Your task to perform on an android device: star an email in the gmail app Image 0: 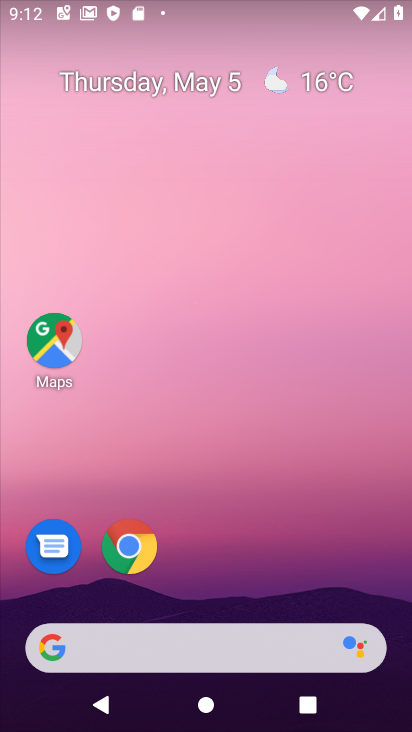
Step 0: drag from (233, 609) to (367, 66)
Your task to perform on an android device: star an email in the gmail app Image 1: 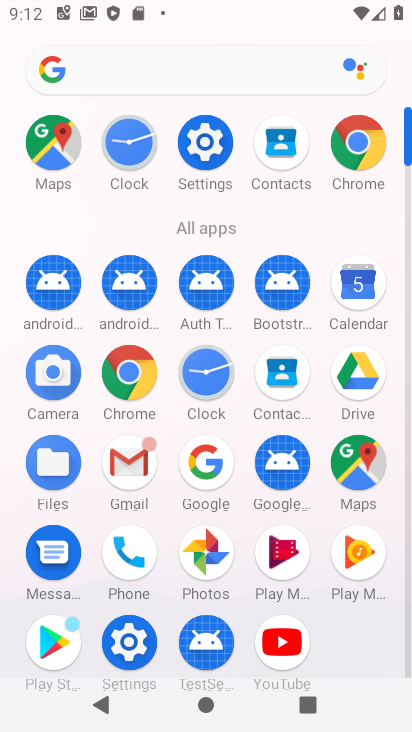
Step 1: click (117, 461)
Your task to perform on an android device: star an email in the gmail app Image 2: 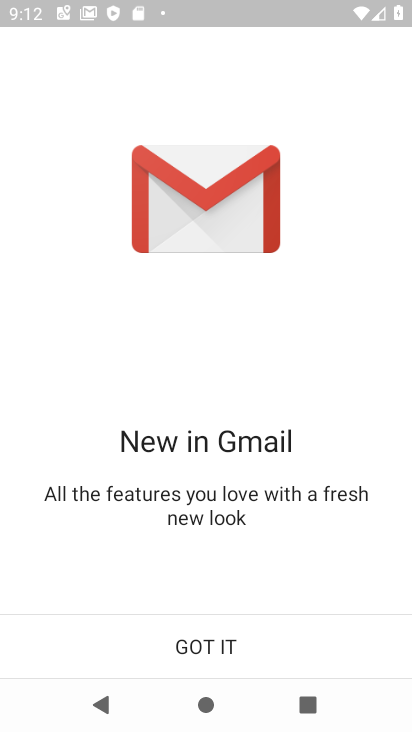
Step 2: click (179, 635)
Your task to perform on an android device: star an email in the gmail app Image 3: 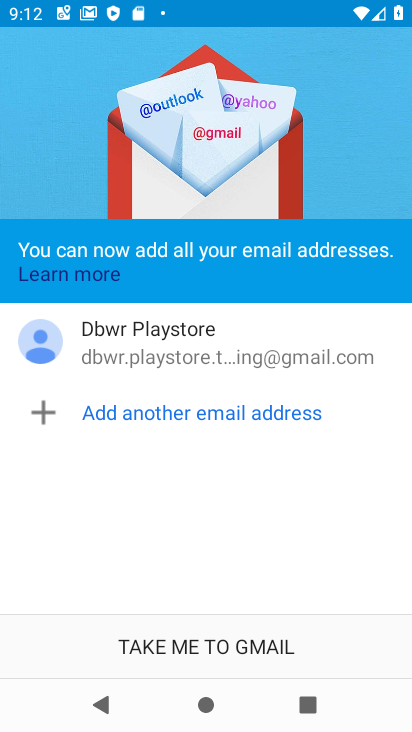
Step 3: click (158, 643)
Your task to perform on an android device: star an email in the gmail app Image 4: 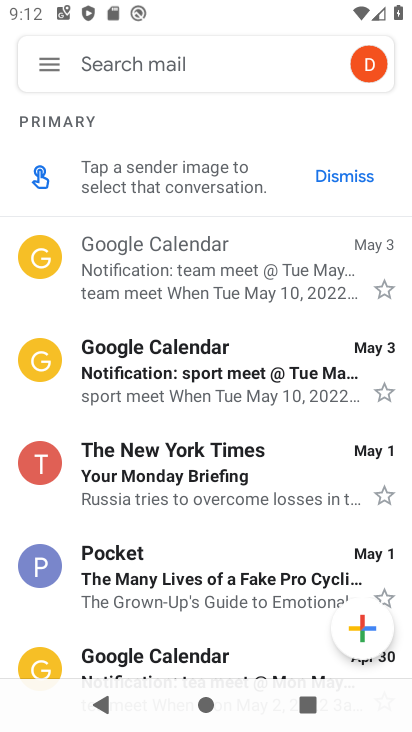
Step 4: click (124, 298)
Your task to perform on an android device: star an email in the gmail app Image 5: 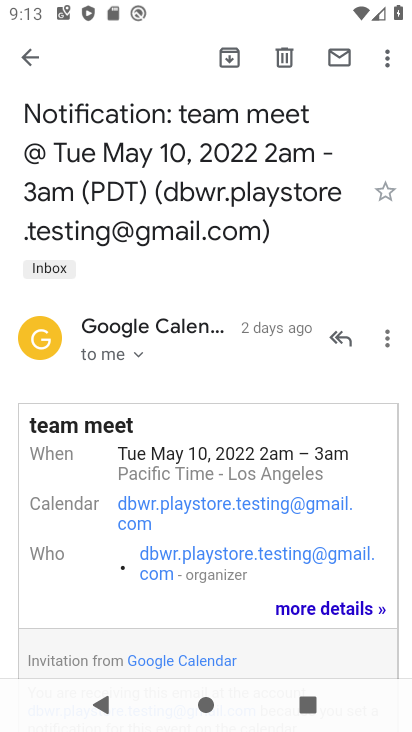
Step 5: click (388, 199)
Your task to perform on an android device: star an email in the gmail app Image 6: 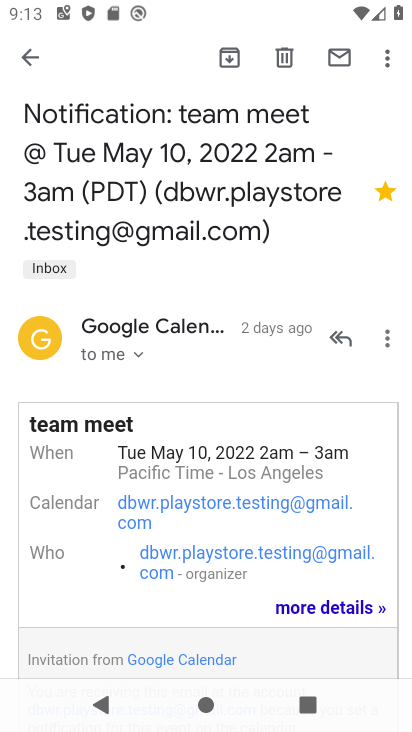
Step 6: task complete